Your task to perform on an android device: Open Yahoo.com Image 0: 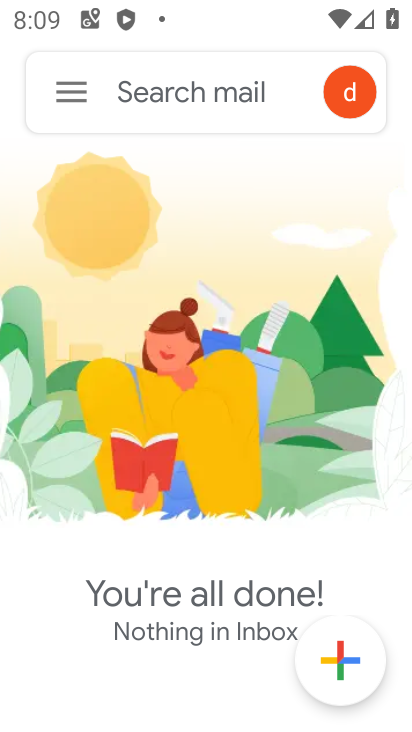
Step 0: press back button
Your task to perform on an android device: Open Yahoo.com Image 1: 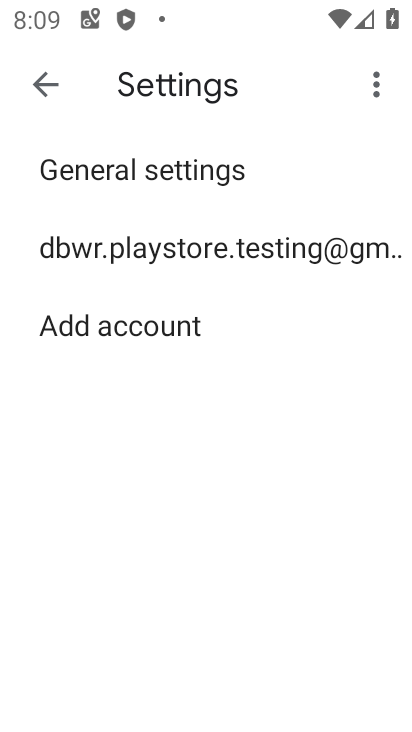
Step 1: press back button
Your task to perform on an android device: Open Yahoo.com Image 2: 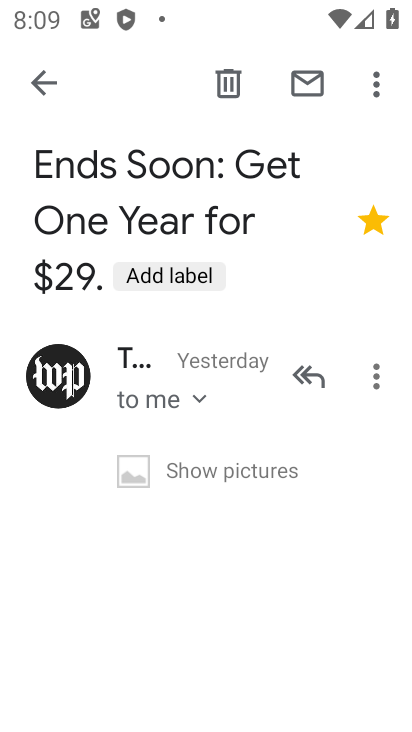
Step 2: press home button
Your task to perform on an android device: Open Yahoo.com Image 3: 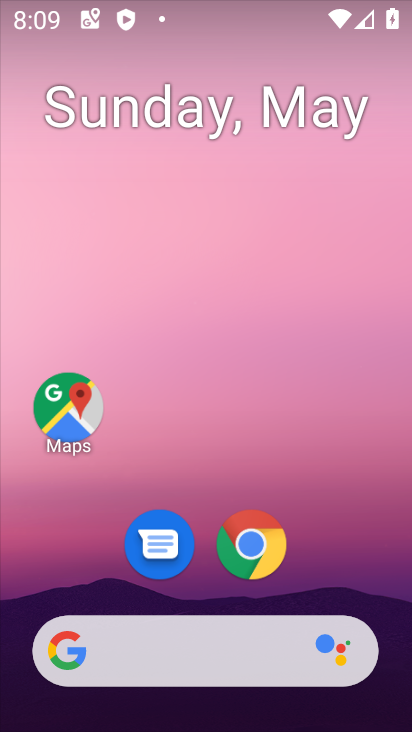
Step 3: drag from (323, 575) to (245, 25)
Your task to perform on an android device: Open Yahoo.com Image 4: 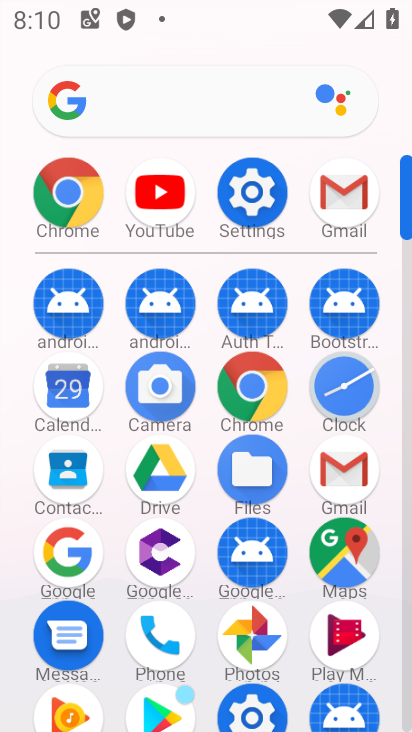
Step 4: click (253, 383)
Your task to perform on an android device: Open Yahoo.com Image 5: 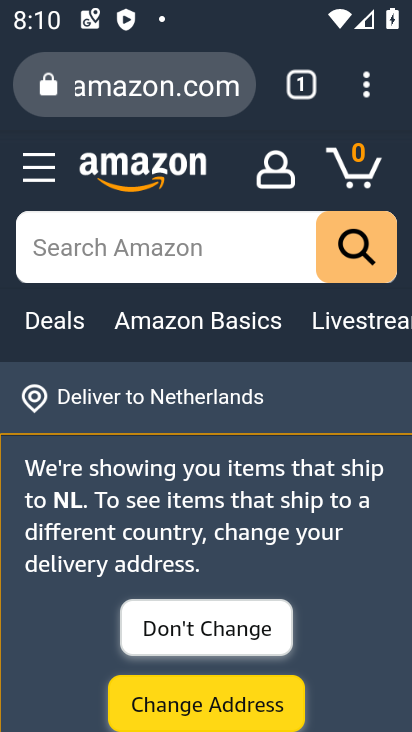
Step 5: click (153, 80)
Your task to perform on an android device: Open Yahoo.com Image 6: 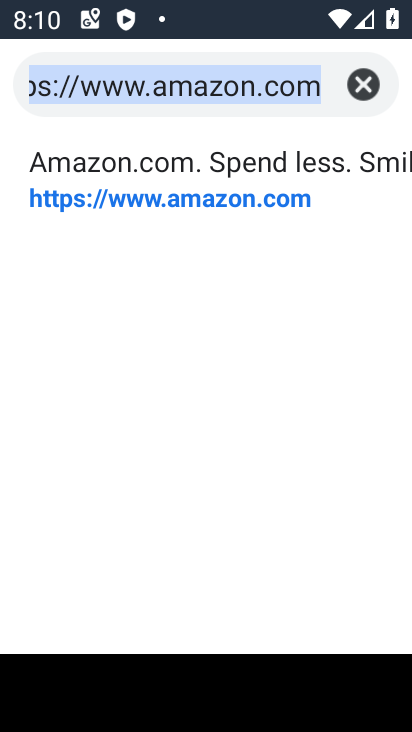
Step 6: click (361, 82)
Your task to perform on an android device: Open Yahoo.com Image 7: 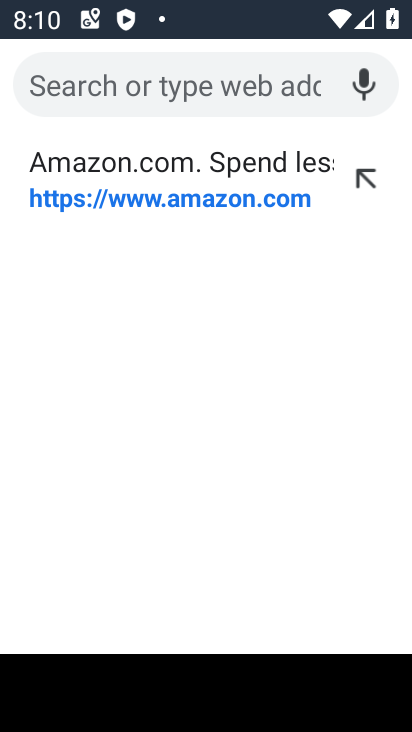
Step 7: type "Yahoo.com"
Your task to perform on an android device: Open Yahoo.com Image 8: 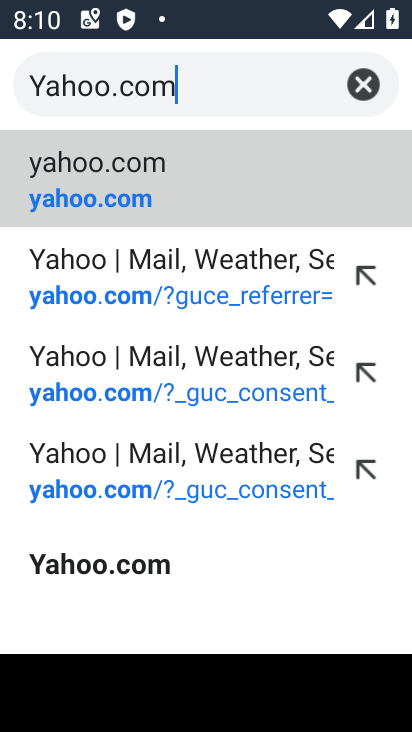
Step 8: type ""
Your task to perform on an android device: Open Yahoo.com Image 9: 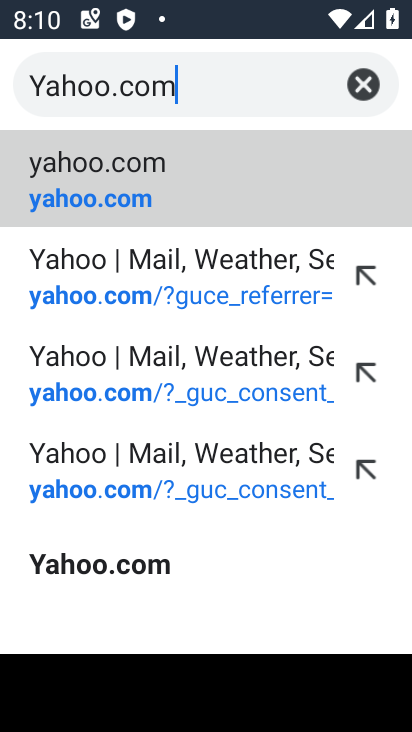
Step 9: click (195, 156)
Your task to perform on an android device: Open Yahoo.com Image 10: 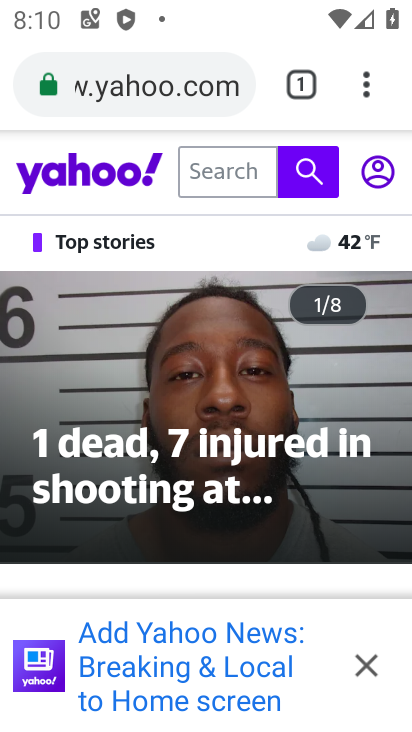
Step 10: task complete